Your task to perform on an android device: Open accessibility settings Image 0: 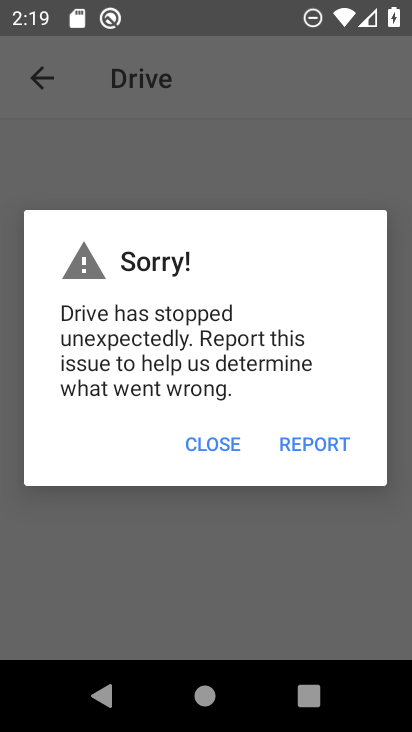
Step 0: press home button
Your task to perform on an android device: Open accessibility settings Image 1: 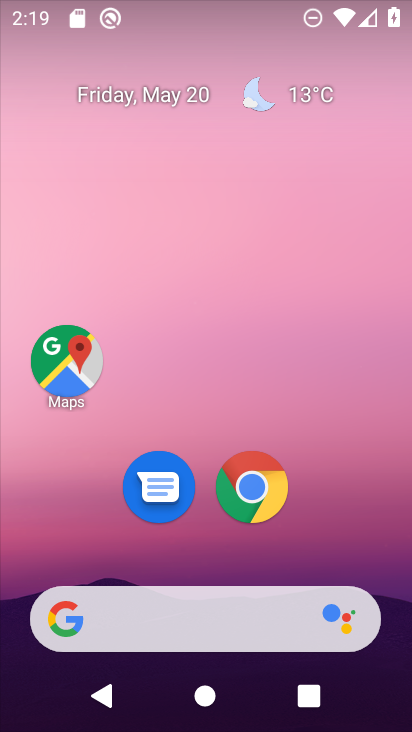
Step 1: drag from (223, 296) to (241, 89)
Your task to perform on an android device: Open accessibility settings Image 2: 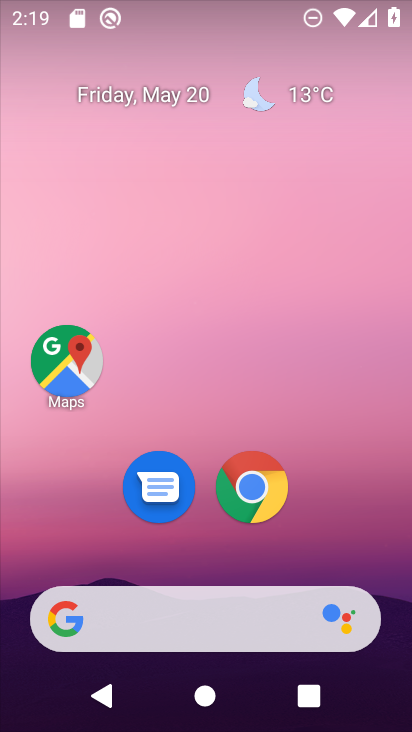
Step 2: drag from (210, 569) to (252, 87)
Your task to perform on an android device: Open accessibility settings Image 3: 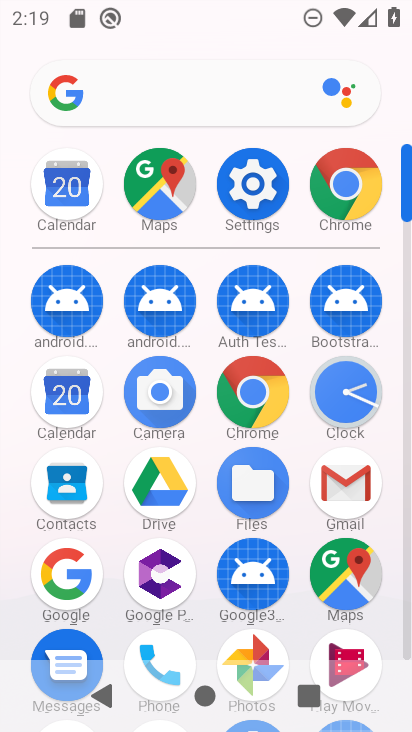
Step 3: click (249, 185)
Your task to perform on an android device: Open accessibility settings Image 4: 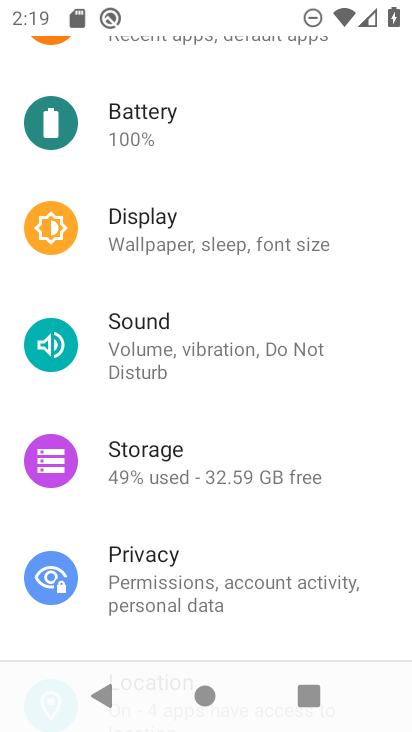
Step 4: drag from (182, 576) to (223, 209)
Your task to perform on an android device: Open accessibility settings Image 5: 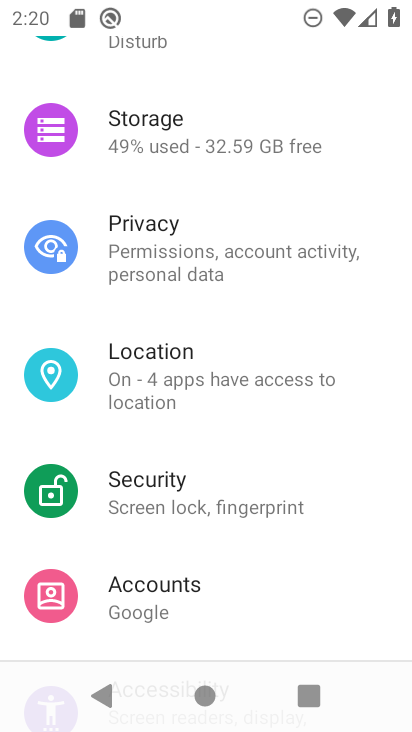
Step 5: drag from (185, 585) to (258, 142)
Your task to perform on an android device: Open accessibility settings Image 6: 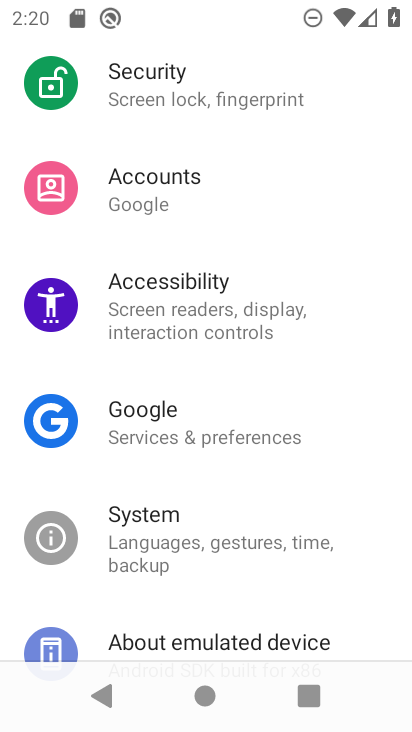
Step 6: click (207, 302)
Your task to perform on an android device: Open accessibility settings Image 7: 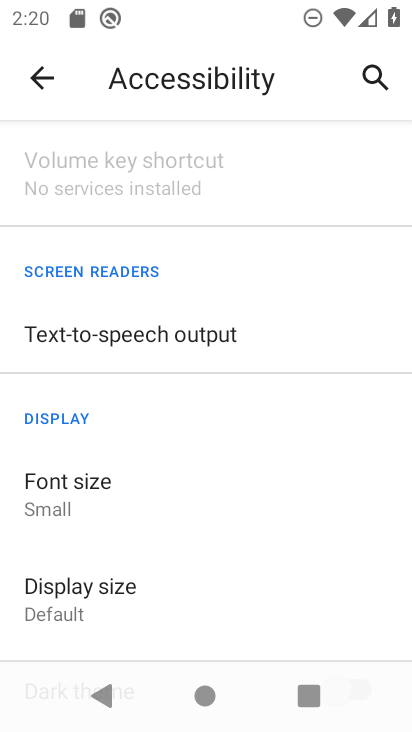
Step 7: task complete